Your task to perform on an android device: See recent photos Image 0: 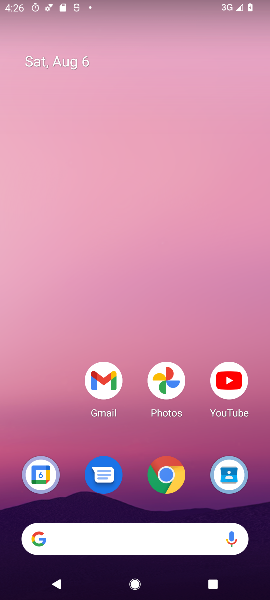
Step 0: click (161, 382)
Your task to perform on an android device: See recent photos Image 1: 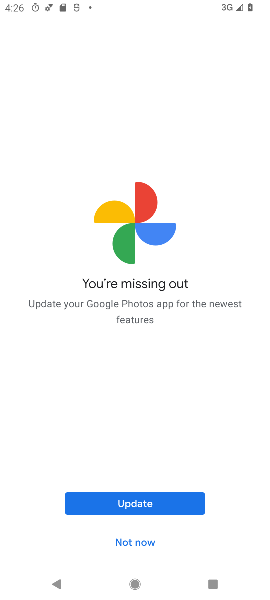
Step 1: click (141, 542)
Your task to perform on an android device: See recent photos Image 2: 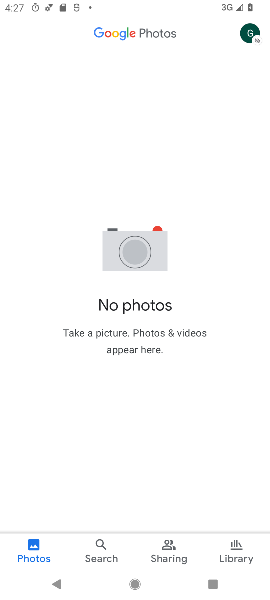
Step 2: task complete